Your task to perform on an android device: add a contact Image 0: 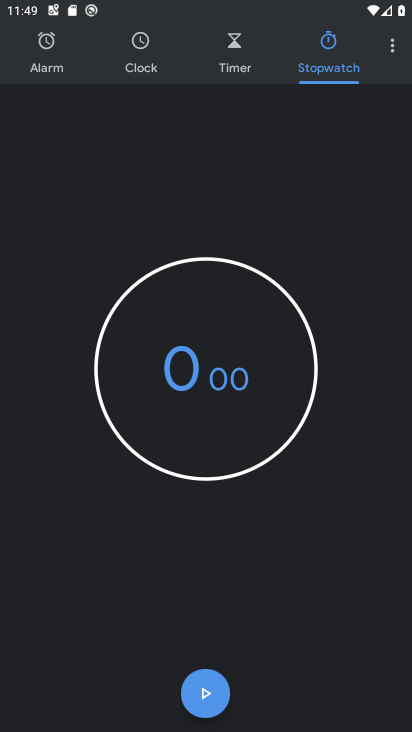
Step 0: press home button
Your task to perform on an android device: add a contact Image 1: 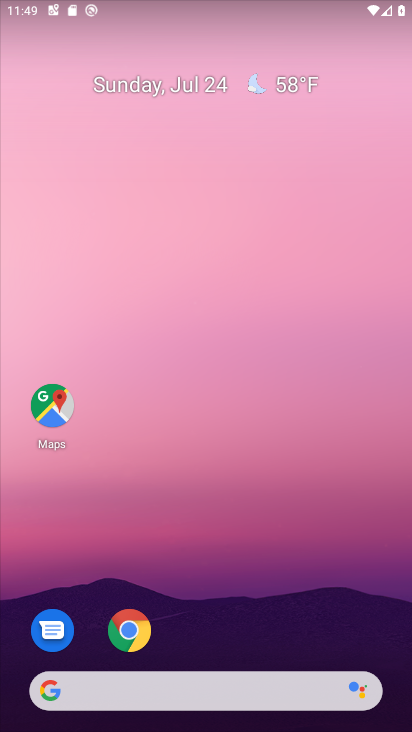
Step 1: drag from (183, 584) to (162, 88)
Your task to perform on an android device: add a contact Image 2: 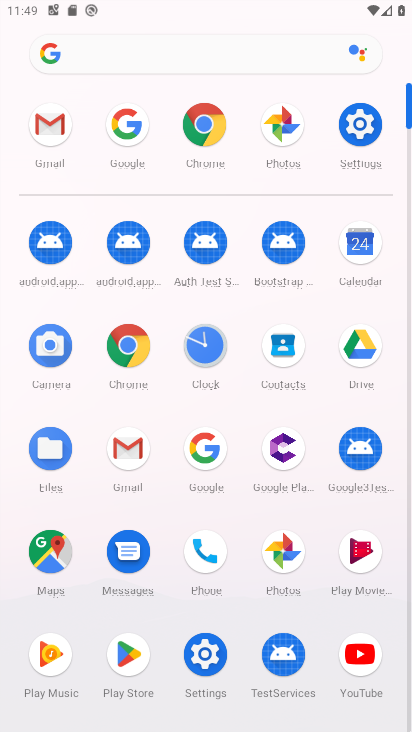
Step 2: click (364, 126)
Your task to perform on an android device: add a contact Image 3: 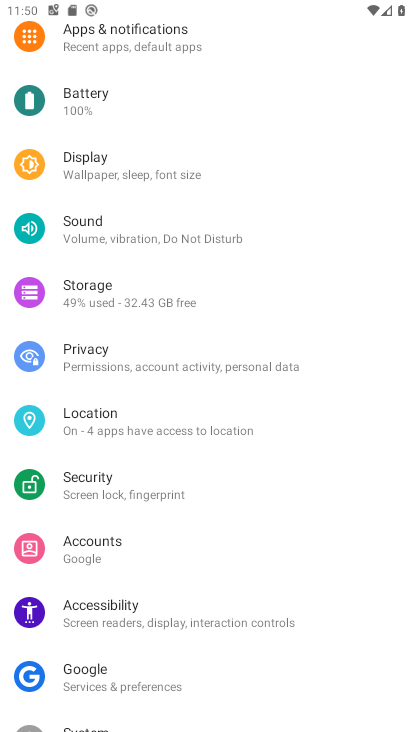
Step 3: press back button
Your task to perform on an android device: add a contact Image 4: 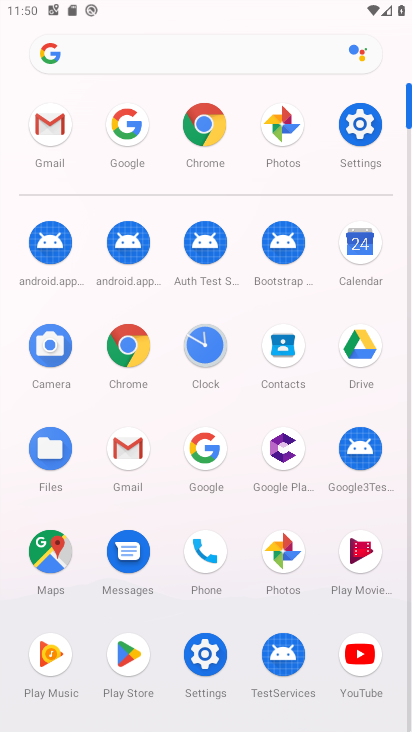
Step 4: click (292, 376)
Your task to perform on an android device: add a contact Image 5: 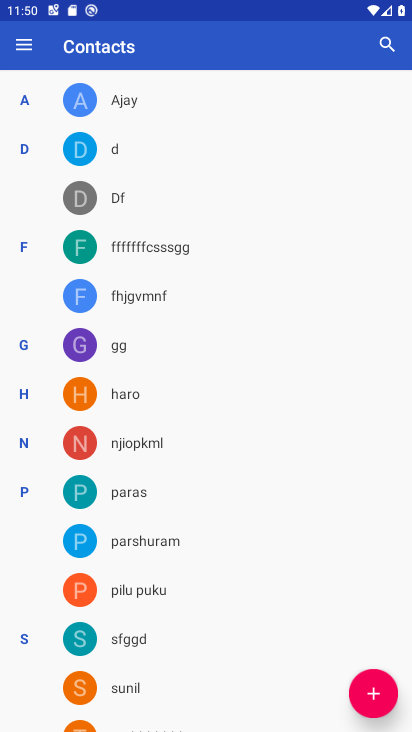
Step 5: click (376, 707)
Your task to perform on an android device: add a contact Image 6: 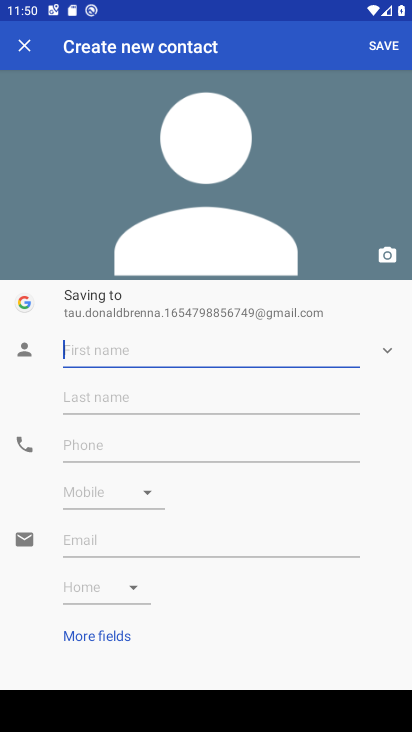
Step 6: type "Rupa"
Your task to perform on an android device: add a contact Image 7: 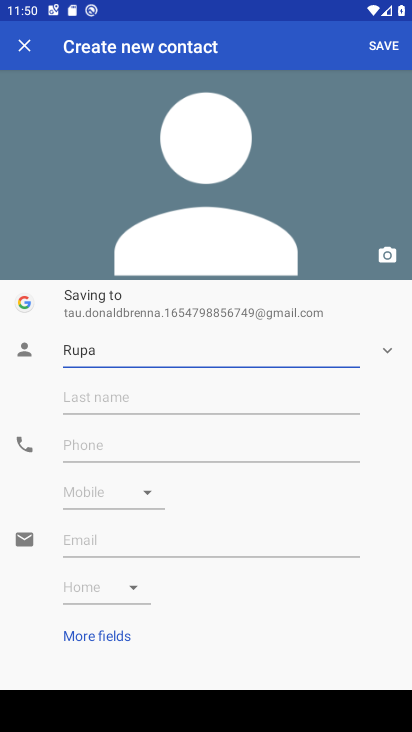
Step 7: click (160, 396)
Your task to perform on an android device: add a contact Image 8: 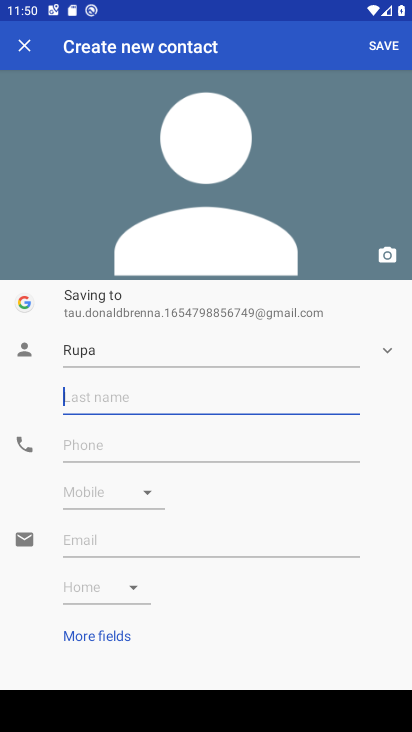
Step 8: type "Ganguly"
Your task to perform on an android device: add a contact Image 9: 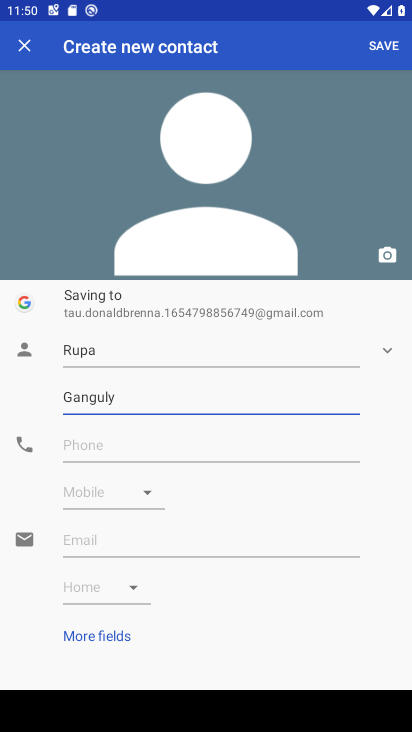
Step 9: click (261, 446)
Your task to perform on an android device: add a contact Image 10: 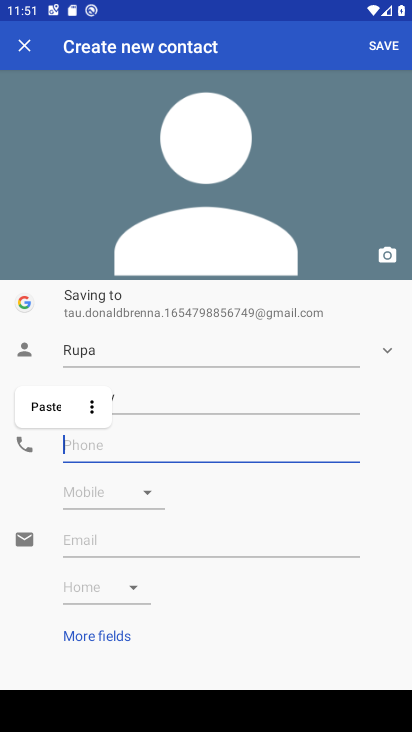
Step 10: type "8909876560"
Your task to perform on an android device: add a contact Image 11: 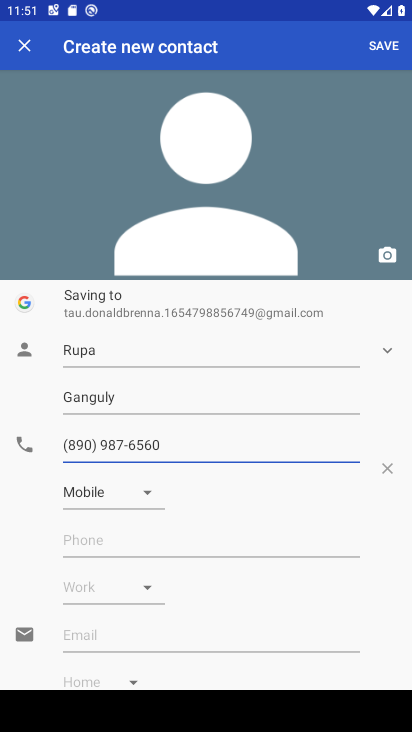
Step 11: click (378, 47)
Your task to perform on an android device: add a contact Image 12: 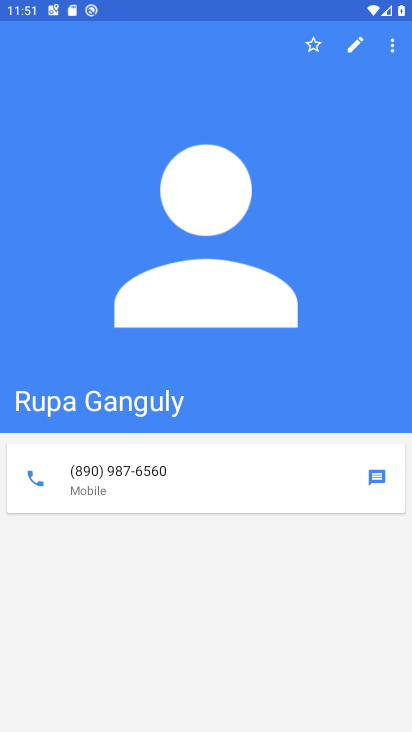
Step 12: task complete